Your task to perform on an android device: add a contact Image 0: 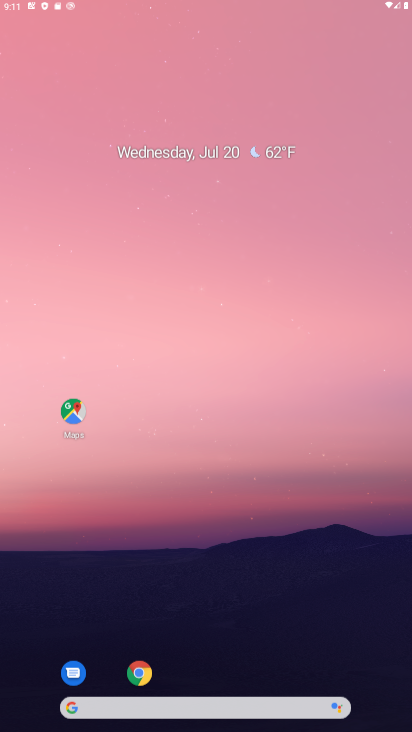
Step 0: drag from (351, 54) to (342, 14)
Your task to perform on an android device: add a contact Image 1: 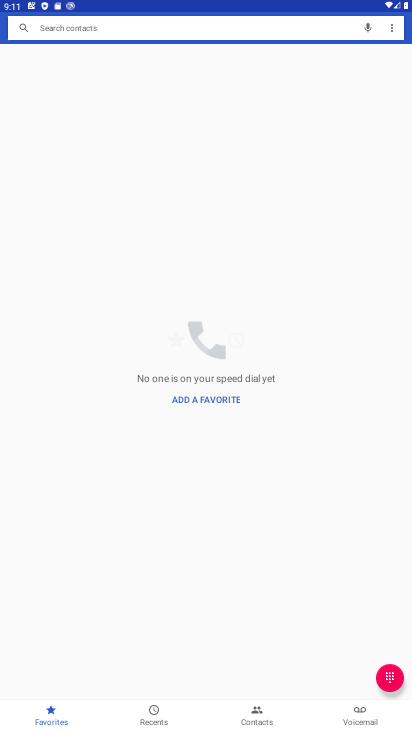
Step 1: press home button
Your task to perform on an android device: add a contact Image 2: 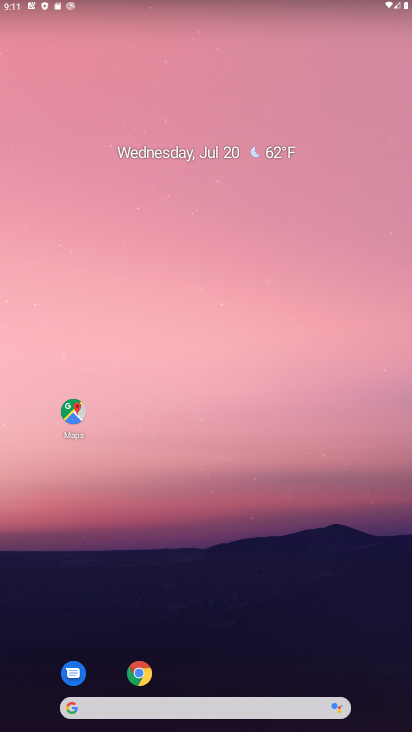
Step 2: drag from (377, 719) to (361, 152)
Your task to perform on an android device: add a contact Image 3: 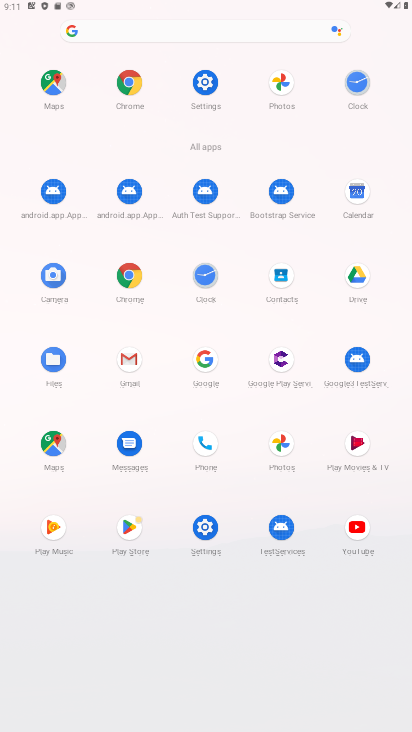
Step 3: click (275, 276)
Your task to perform on an android device: add a contact Image 4: 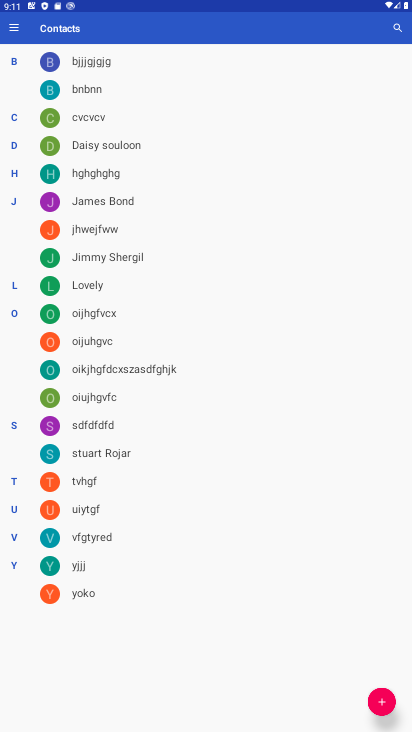
Step 4: click (376, 689)
Your task to perform on an android device: add a contact Image 5: 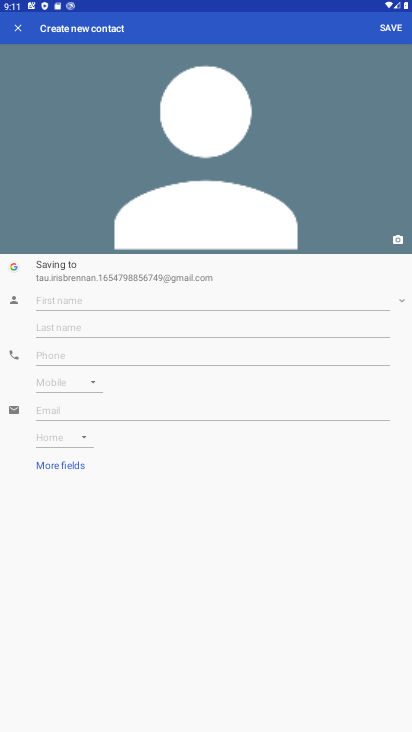
Step 5: click (86, 301)
Your task to perform on an android device: add a contact Image 6: 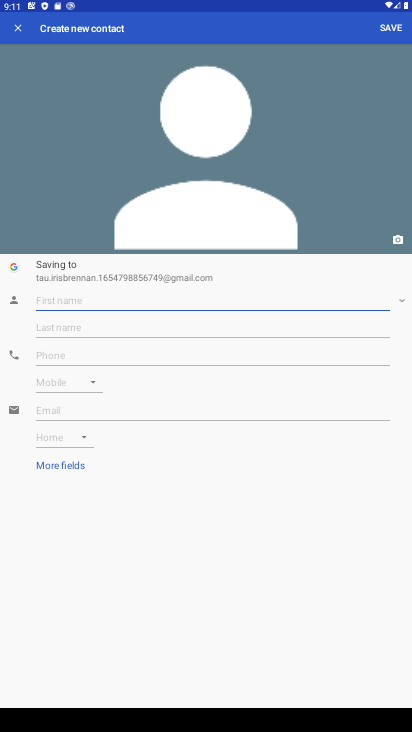
Step 6: type "sfagasggsg"
Your task to perform on an android device: add a contact Image 7: 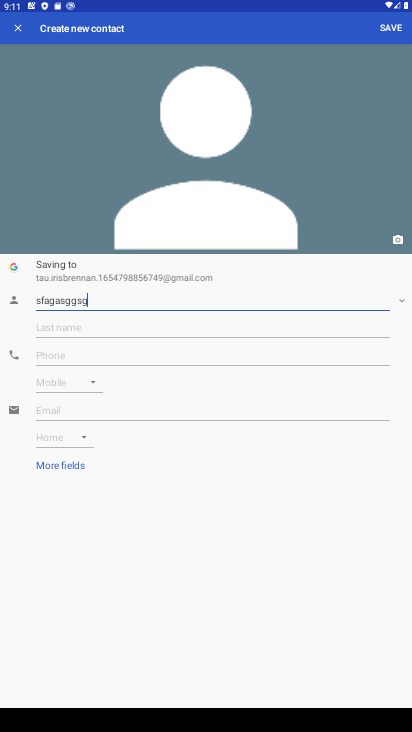
Step 7: click (73, 326)
Your task to perform on an android device: add a contact Image 8: 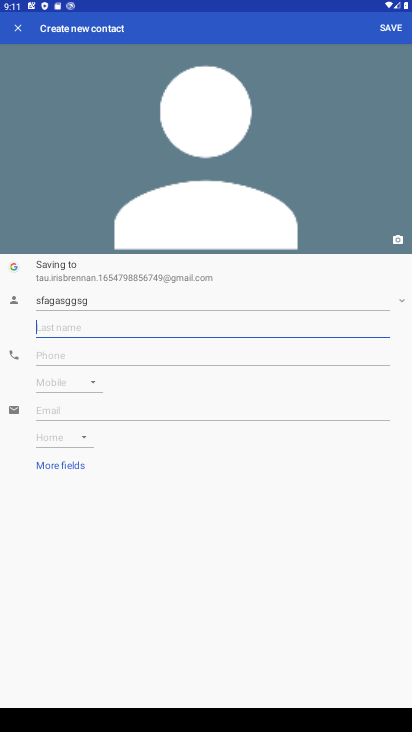
Step 8: type "gfsbfgaf"
Your task to perform on an android device: add a contact Image 9: 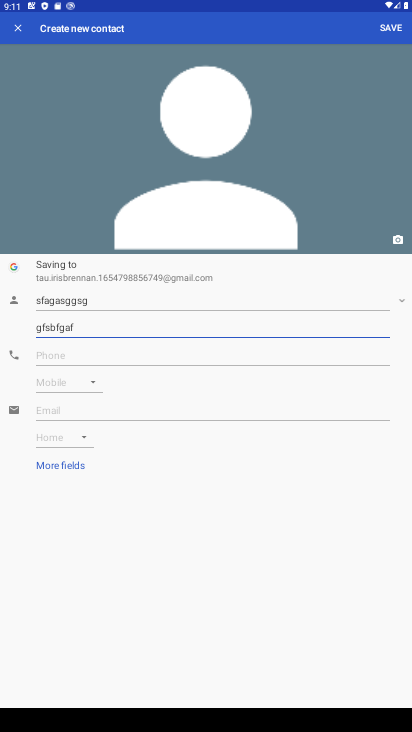
Step 9: click (49, 350)
Your task to perform on an android device: add a contact Image 10: 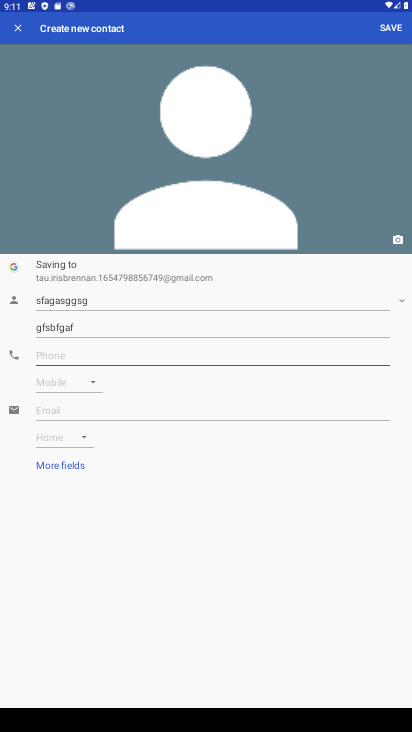
Step 10: type "451454545545454"
Your task to perform on an android device: add a contact Image 11: 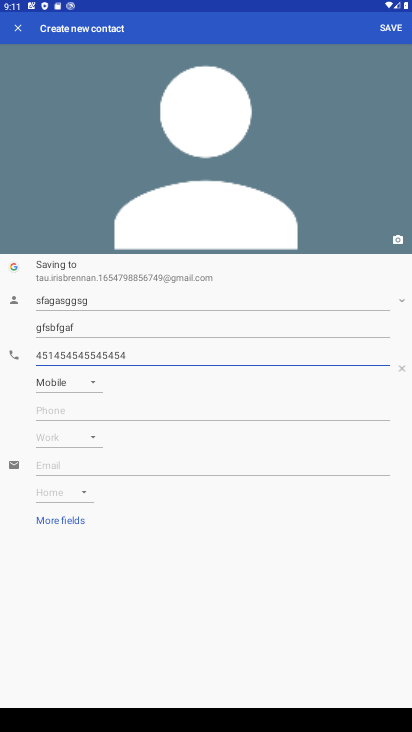
Step 11: click (391, 23)
Your task to perform on an android device: add a contact Image 12: 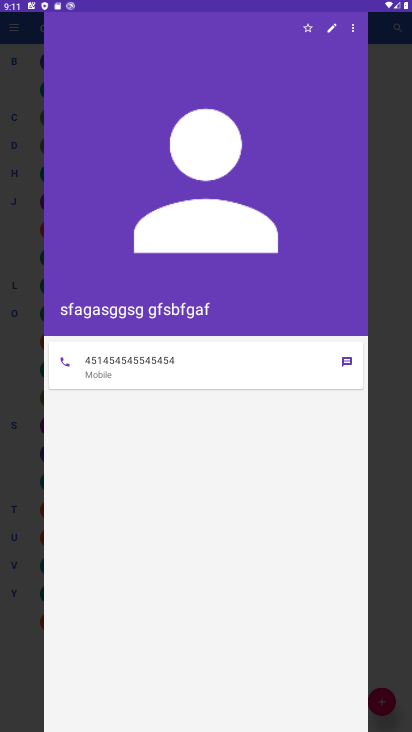
Step 12: task complete